Your task to perform on an android device: Go to network settings Image 0: 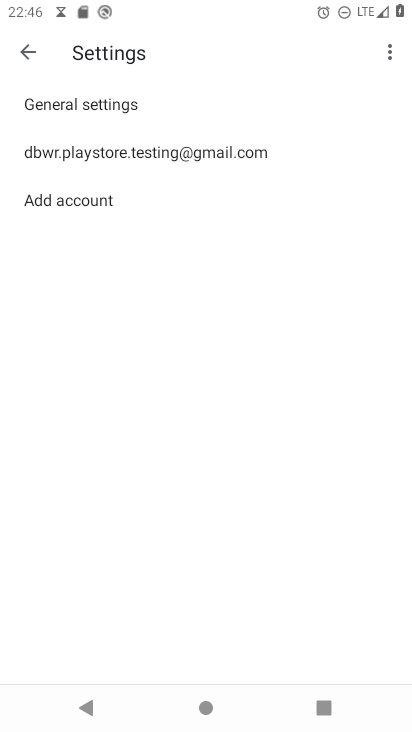
Step 0: press home button
Your task to perform on an android device: Go to network settings Image 1: 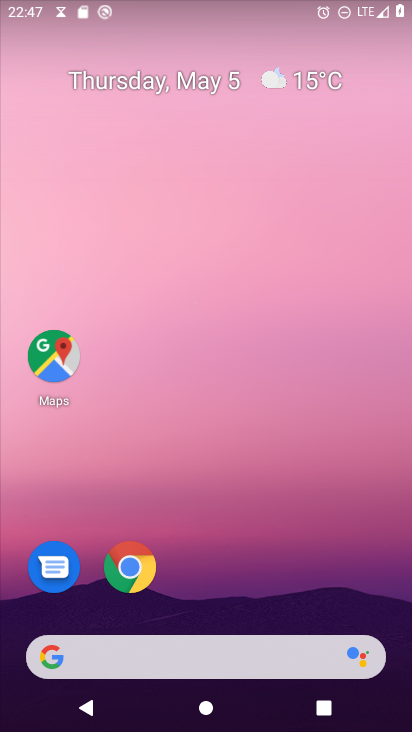
Step 1: drag from (223, 731) to (219, 110)
Your task to perform on an android device: Go to network settings Image 2: 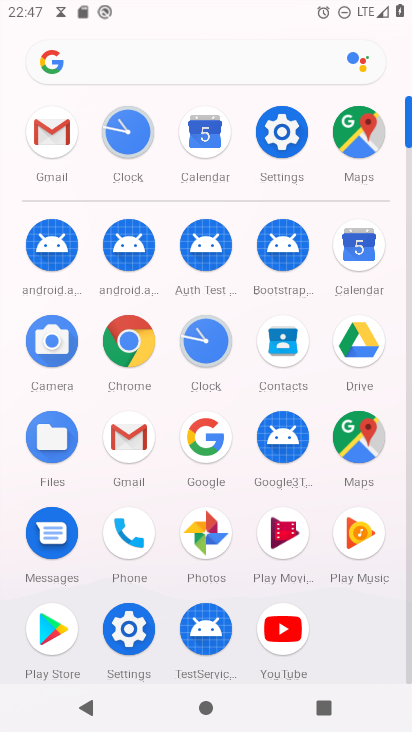
Step 2: click (282, 131)
Your task to perform on an android device: Go to network settings Image 3: 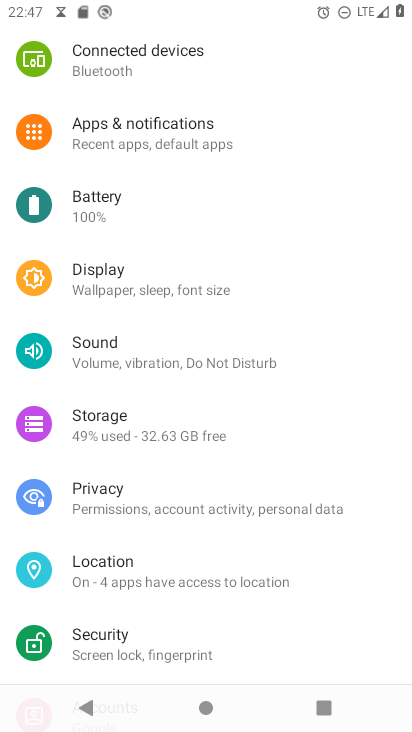
Step 3: drag from (188, 96) to (187, 437)
Your task to perform on an android device: Go to network settings Image 4: 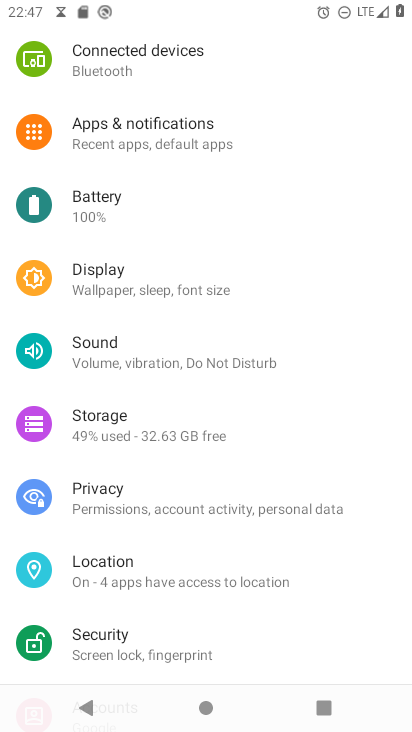
Step 4: drag from (149, 137) to (160, 419)
Your task to perform on an android device: Go to network settings Image 5: 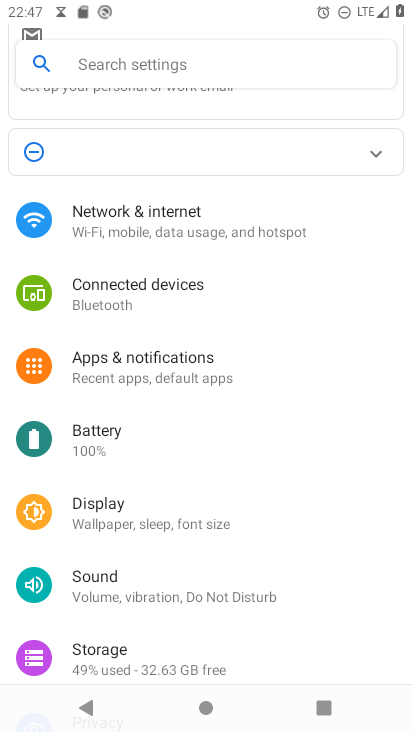
Step 5: click (157, 223)
Your task to perform on an android device: Go to network settings Image 6: 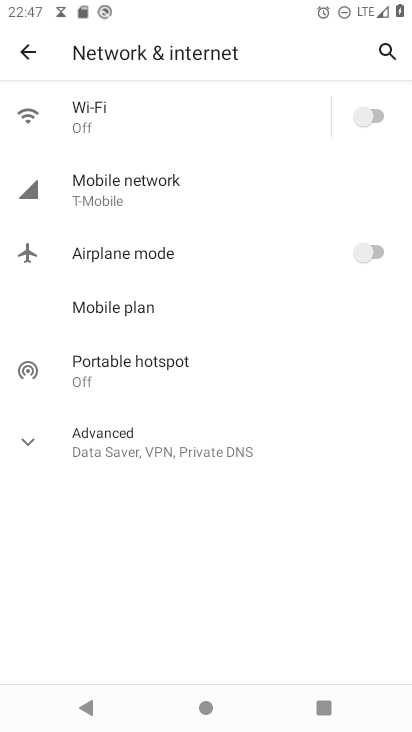
Step 6: click (125, 196)
Your task to perform on an android device: Go to network settings Image 7: 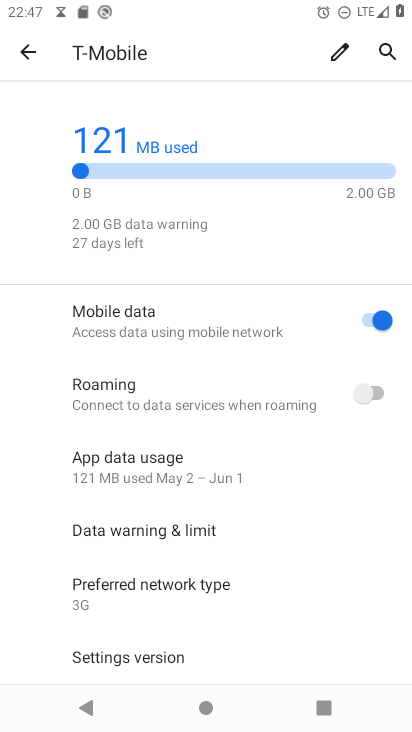
Step 7: task complete